Your task to perform on an android device: manage bookmarks in the chrome app Image 0: 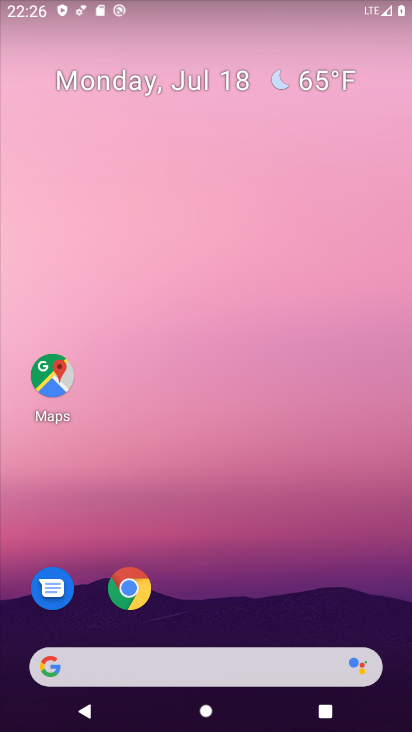
Step 0: press home button
Your task to perform on an android device: manage bookmarks in the chrome app Image 1: 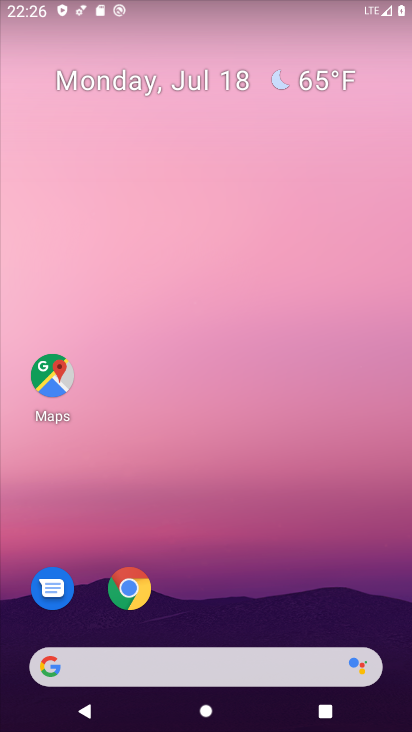
Step 1: click (138, 588)
Your task to perform on an android device: manage bookmarks in the chrome app Image 2: 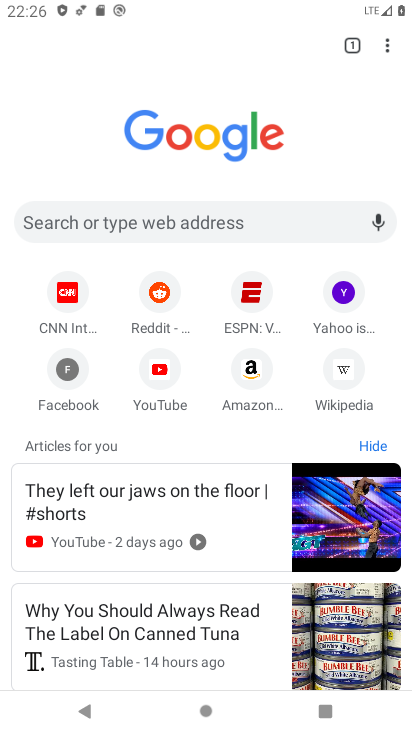
Step 2: click (378, 46)
Your task to perform on an android device: manage bookmarks in the chrome app Image 3: 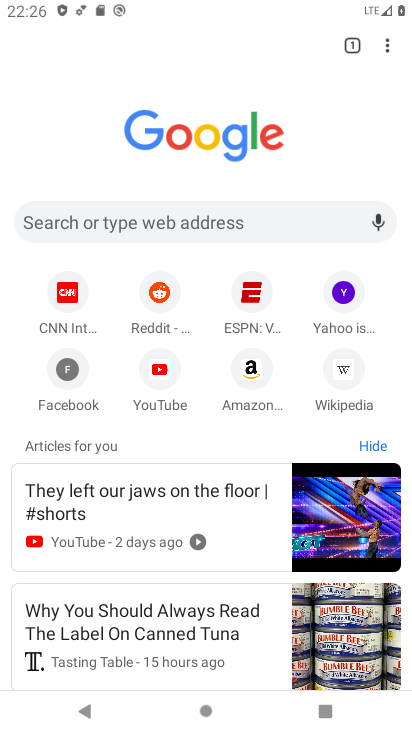
Step 3: task complete